Your task to perform on an android device: Go to CNN.com Image 0: 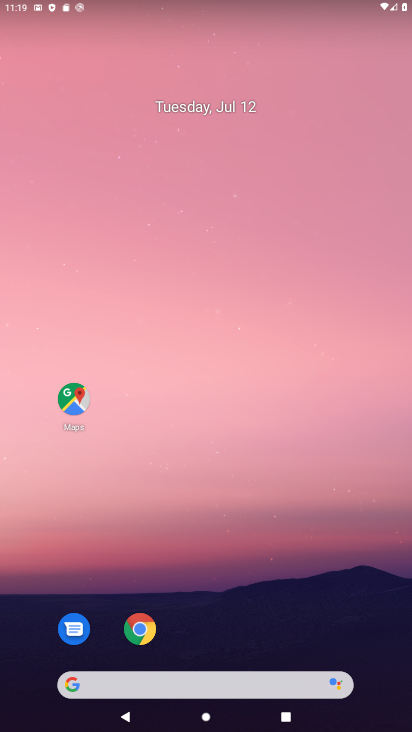
Step 0: click (145, 627)
Your task to perform on an android device: Go to CNN.com Image 1: 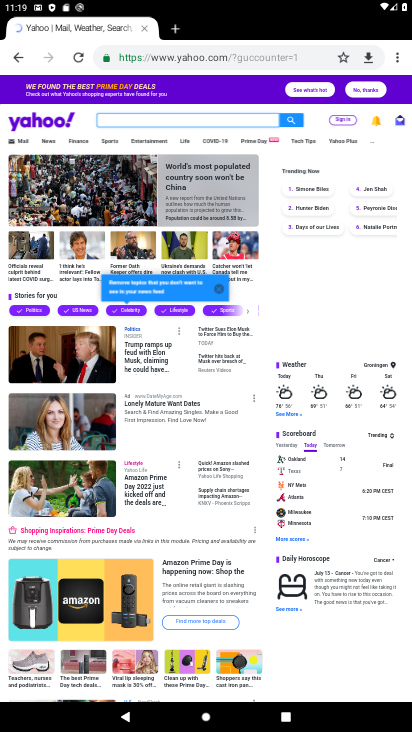
Step 1: click (286, 55)
Your task to perform on an android device: Go to CNN.com Image 2: 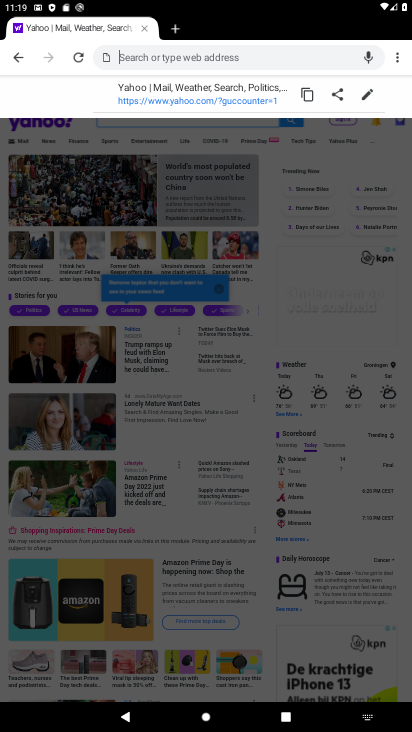
Step 2: type "cnn.com"
Your task to perform on an android device: Go to CNN.com Image 3: 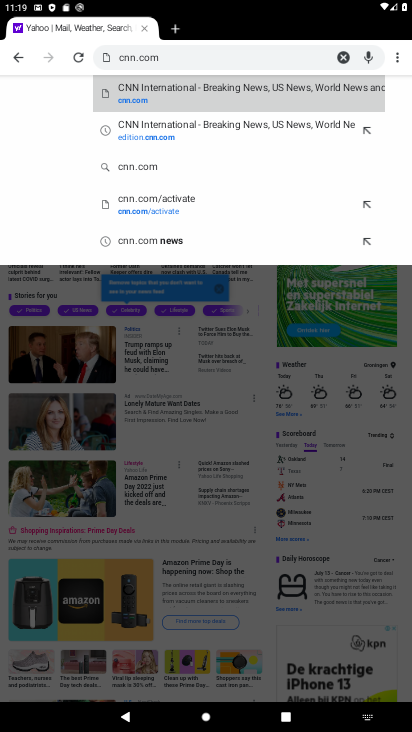
Step 3: click (248, 103)
Your task to perform on an android device: Go to CNN.com Image 4: 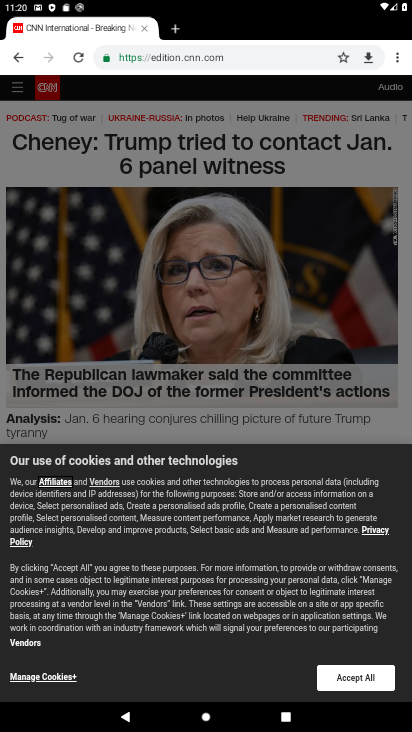
Step 4: task complete